Your task to perform on an android device: Toggle the flashlight Image 0: 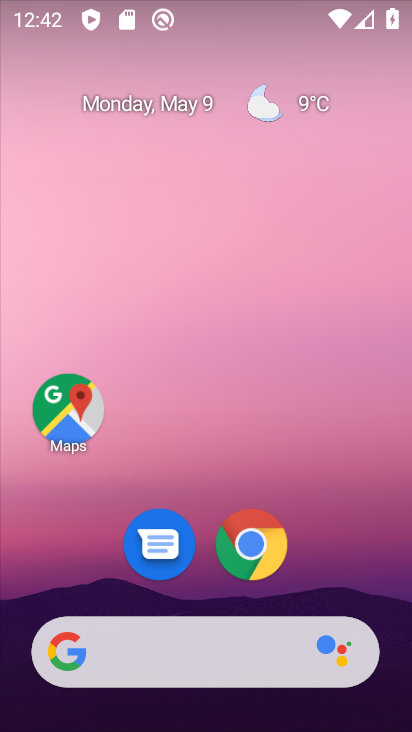
Step 0: drag from (337, 549) to (310, 451)
Your task to perform on an android device: Toggle the flashlight Image 1: 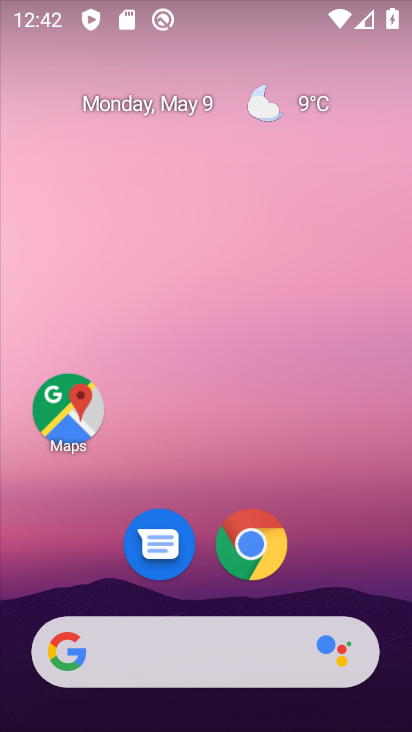
Step 1: drag from (348, 10) to (321, 490)
Your task to perform on an android device: Toggle the flashlight Image 2: 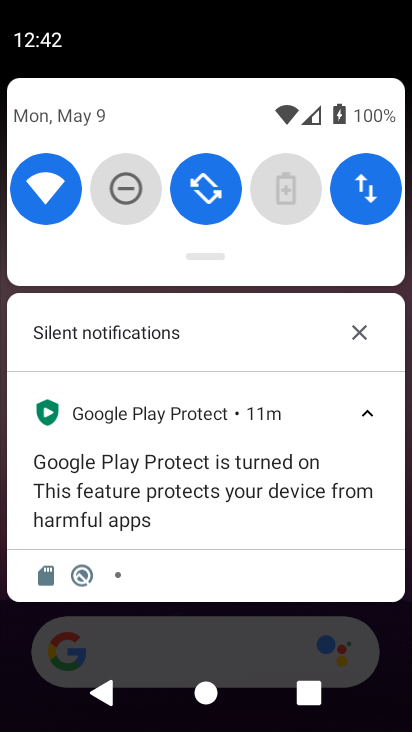
Step 2: drag from (291, 268) to (290, 551)
Your task to perform on an android device: Toggle the flashlight Image 3: 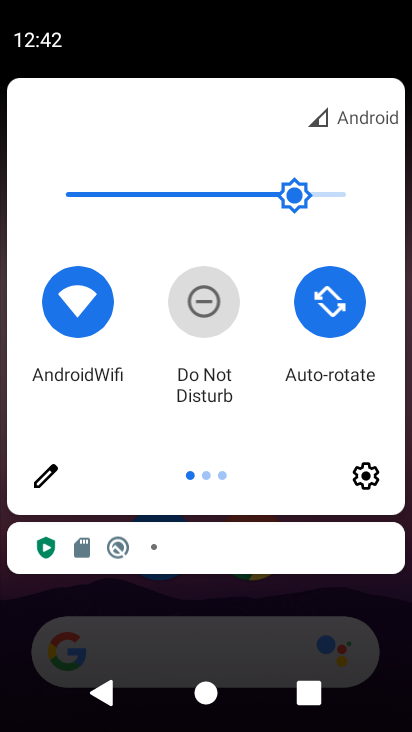
Step 3: click (45, 477)
Your task to perform on an android device: Toggle the flashlight Image 4: 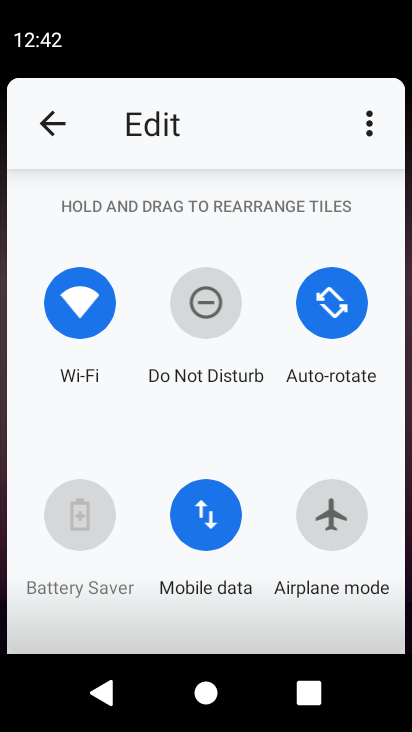
Step 4: task complete